Your task to perform on an android device: turn on the 24-hour format for clock Image 0: 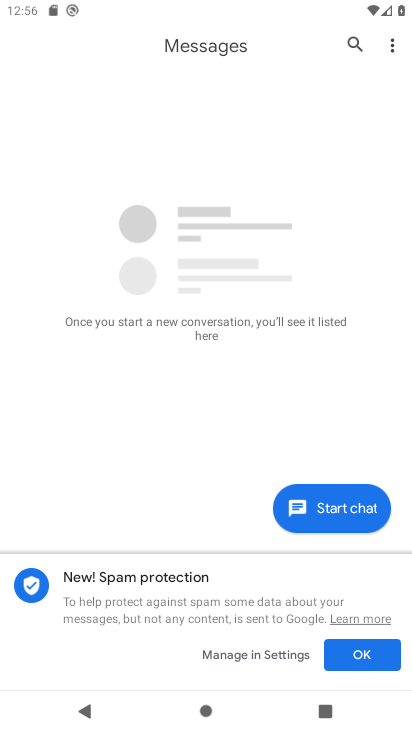
Step 0: press home button
Your task to perform on an android device: turn on the 24-hour format for clock Image 1: 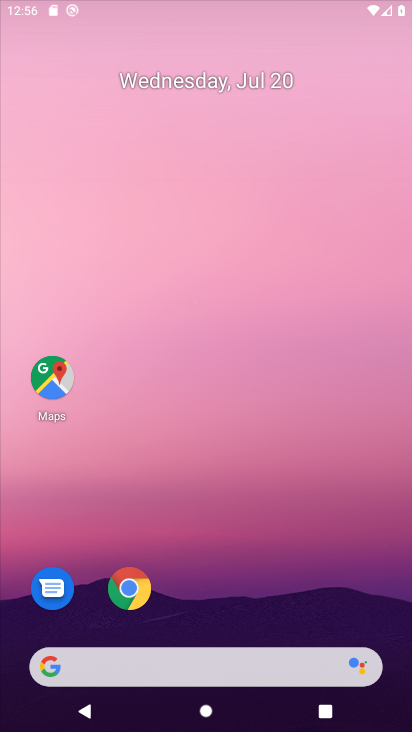
Step 1: drag from (53, 679) to (62, 224)
Your task to perform on an android device: turn on the 24-hour format for clock Image 2: 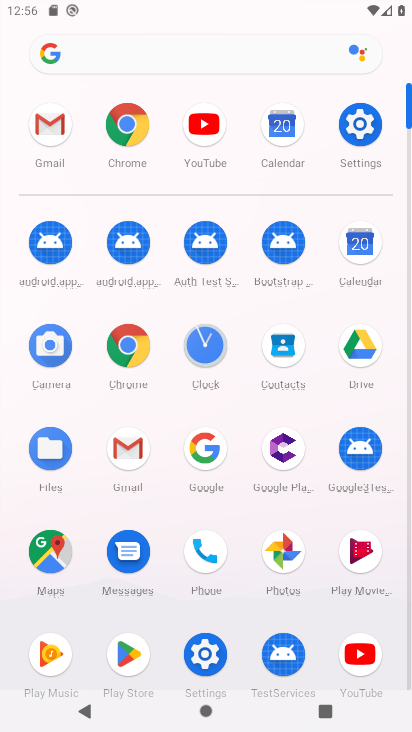
Step 2: click (206, 340)
Your task to perform on an android device: turn on the 24-hour format for clock Image 3: 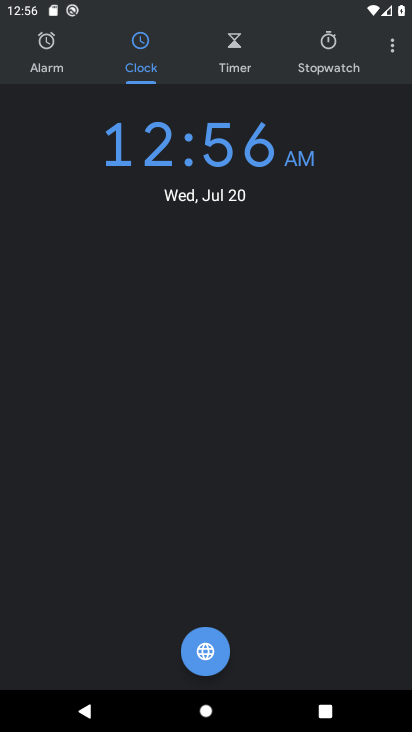
Step 3: click (391, 47)
Your task to perform on an android device: turn on the 24-hour format for clock Image 4: 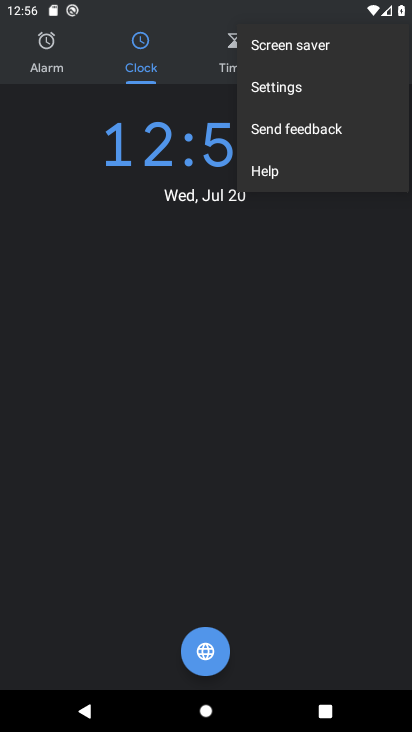
Step 4: click (301, 85)
Your task to perform on an android device: turn on the 24-hour format for clock Image 5: 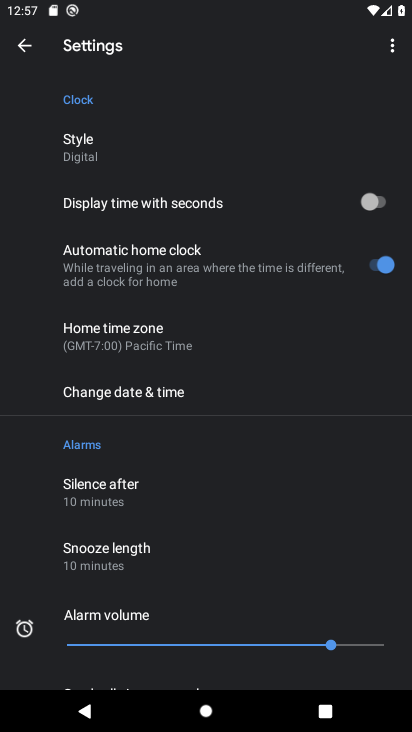
Step 5: drag from (197, 487) to (195, 235)
Your task to perform on an android device: turn on the 24-hour format for clock Image 6: 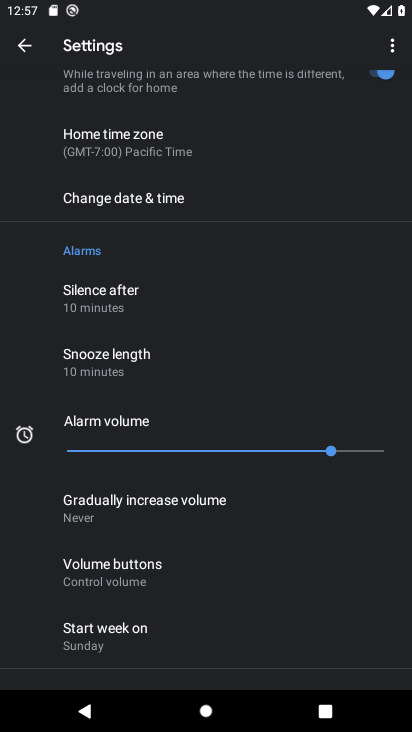
Step 6: click (138, 194)
Your task to perform on an android device: turn on the 24-hour format for clock Image 7: 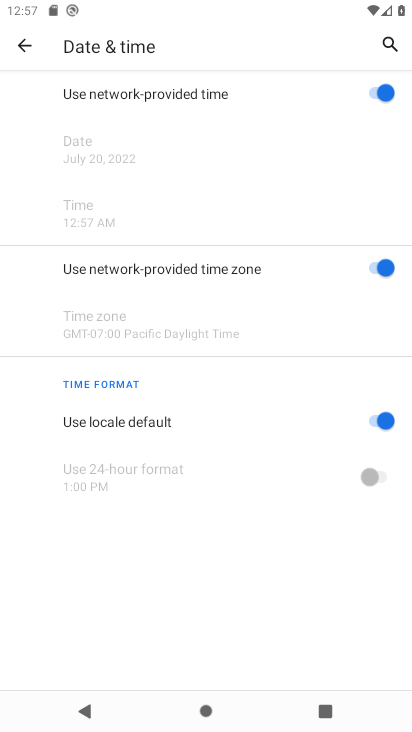
Step 7: click (363, 423)
Your task to perform on an android device: turn on the 24-hour format for clock Image 8: 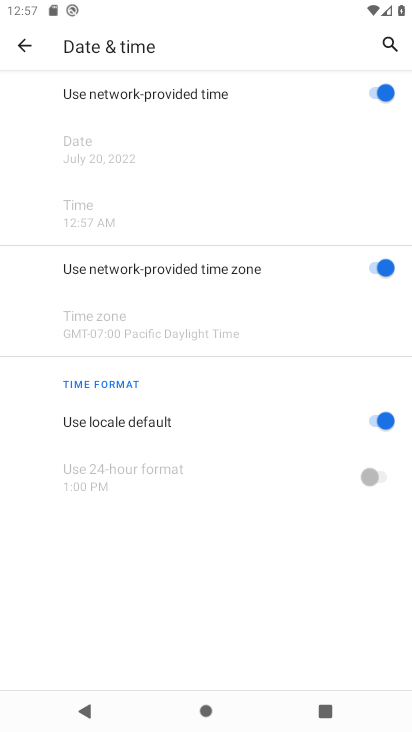
Step 8: click (371, 469)
Your task to perform on an android device: turn on the 24-hour format for clock Image 9: 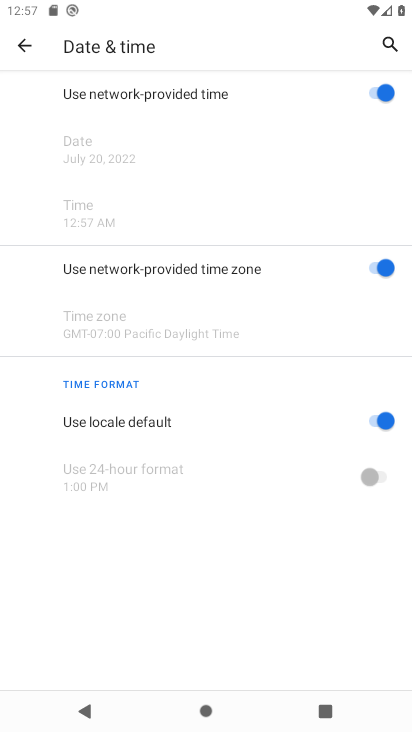
Step 9: click (371, 434)
Your task to perform on an android device: turn on the 24-hour format for clock Image 10: 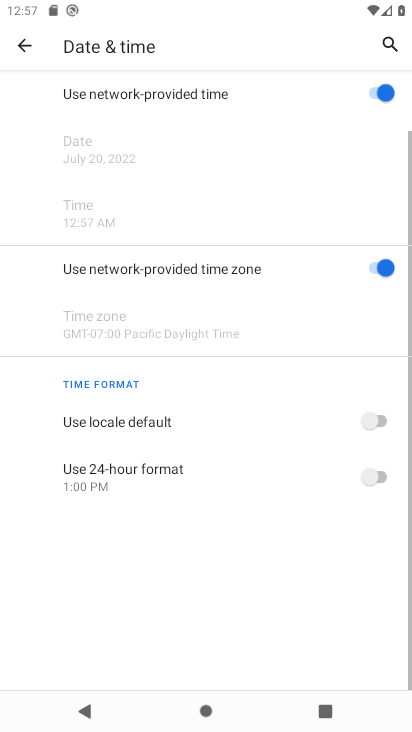
Step 10: click (373, 478)
Your task to perform on an android device: turn on the 24-hour format for clock Image 11: 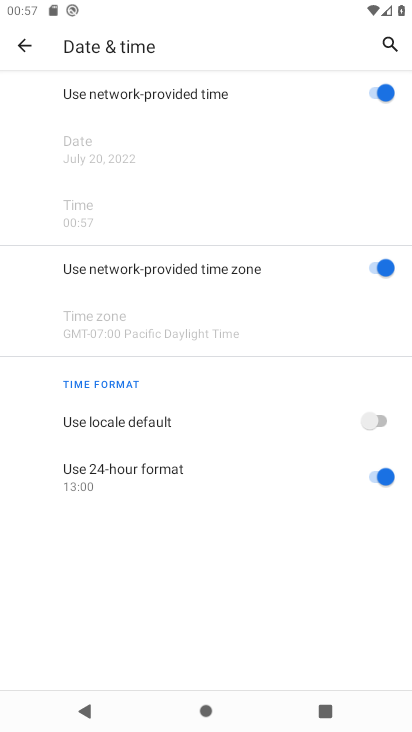
Step 11: task complete